Your task to perform on an android device: turn on sleep mode Image 0: 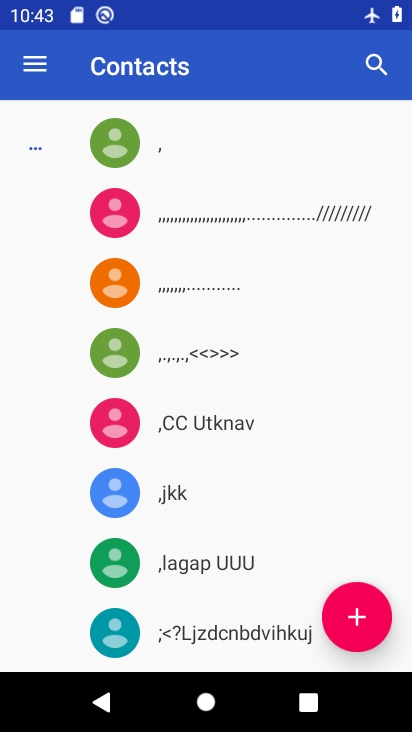
Step 0: press home button
Your task to perform on an android device: turn on sleep mode Image 1: 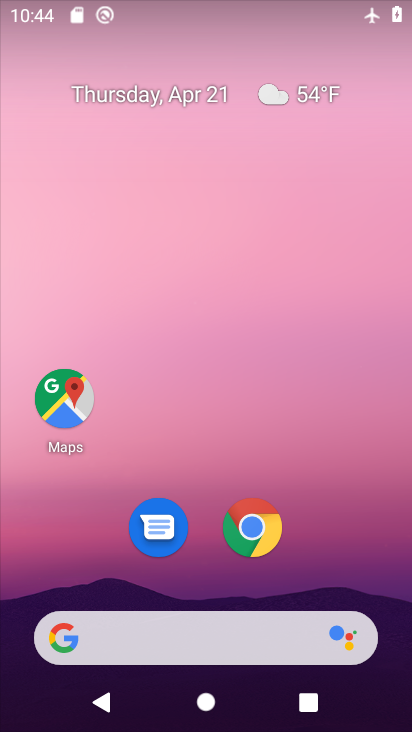
Step 1: drag from (342, 472) to (362, 142)
Your task to perform on an android device: turn on sleep mode Image 2: 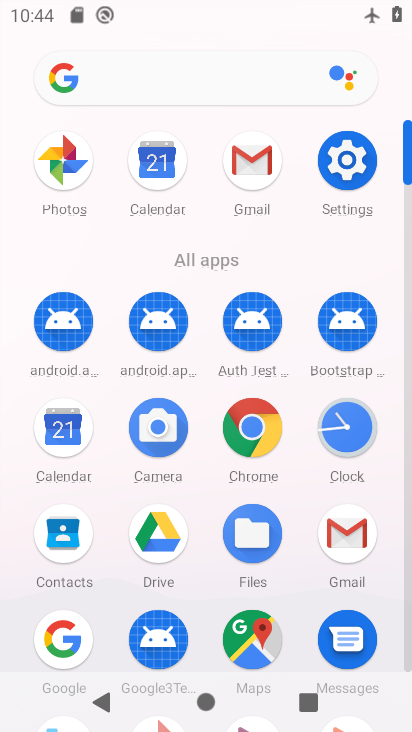
Step 2: click (337, 169)
Your task to perform on an android device: turn on sleep mode Image 3: 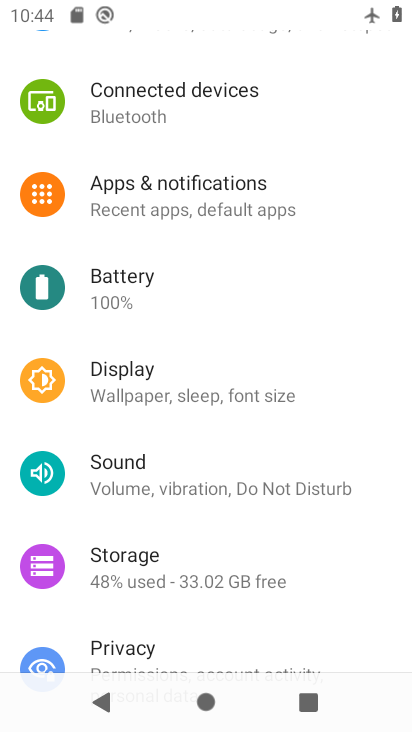
Step 3: drag from (236, 303) to (220, 572)
Your task to perform on an android device: turn on sleep mode Image 4: 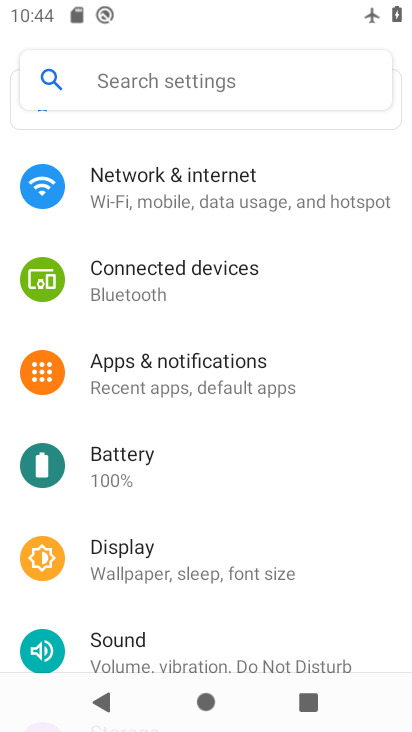
Step 4: drag from (277, 353) to (255, 572)
Your task to perform on an android device: turn on sleep mode Image 5: 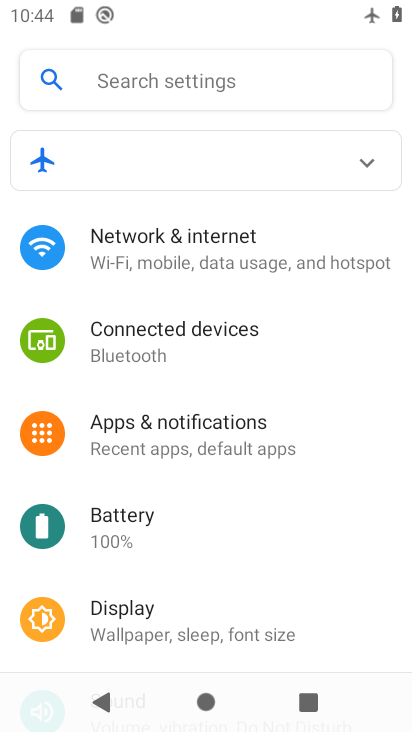
Step 5: click (151, 619)
Your task to perform on an android device: turn on sleep mode Image 6: 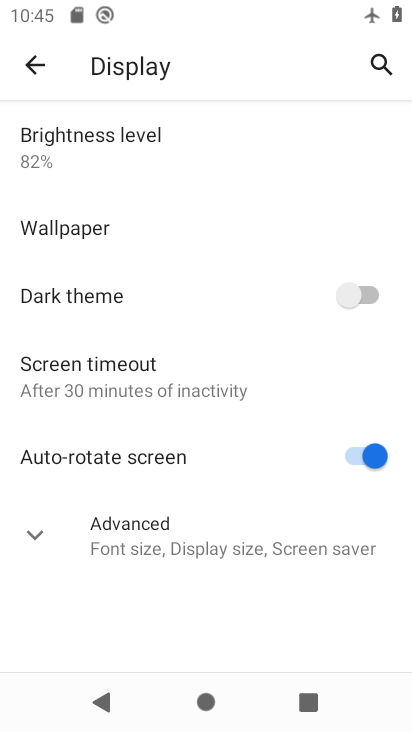
Step 6: click (39, 539)
Your task to perform on an android device: turn on sleep mode Image 7: 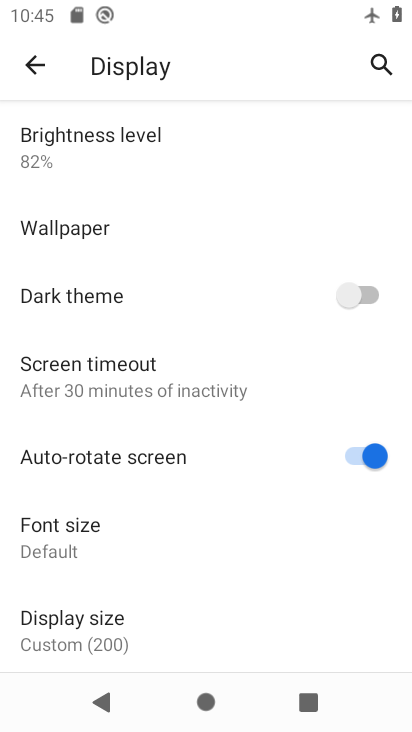
Step 7: task complete